Your task to perform on an android device: turn pop-ups on in chrome Image 0: 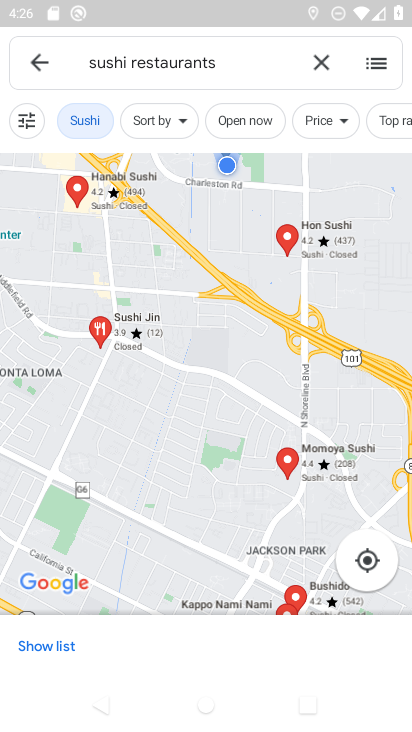
Step 0: press home button
Your task to perform on an android device: turn pop-ups on in chrome Image 1: 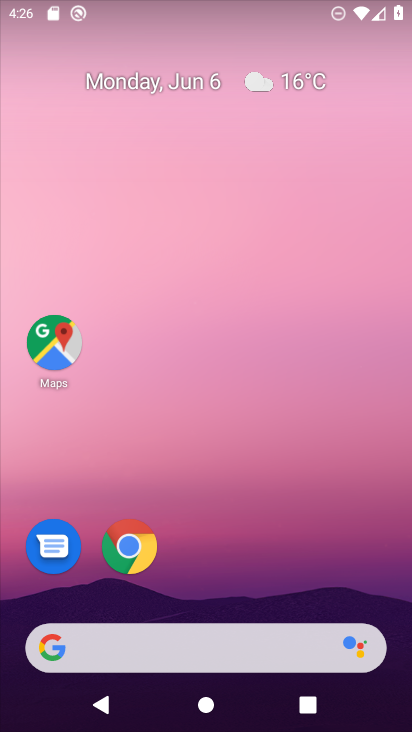
Step 1: click (155, 564)
Your task to perform on an android device: turn pop-ups on in chrome Image 2: 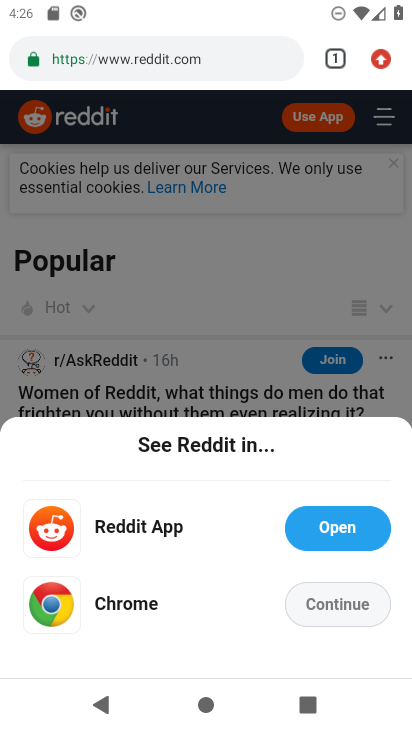
Step 2: click (385, 69)
Your task to perform on an android device: turn pop-ups on in chrome Image 3: 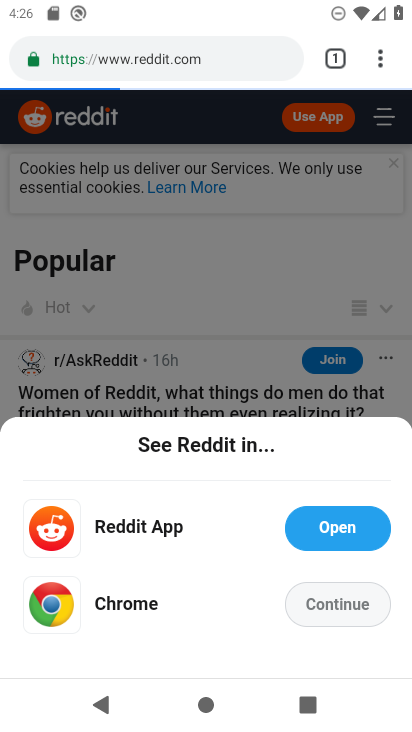
Step 3: click (384, 66)
Your task to perform on an android device: turn pop-ups on in chrome Image 4: 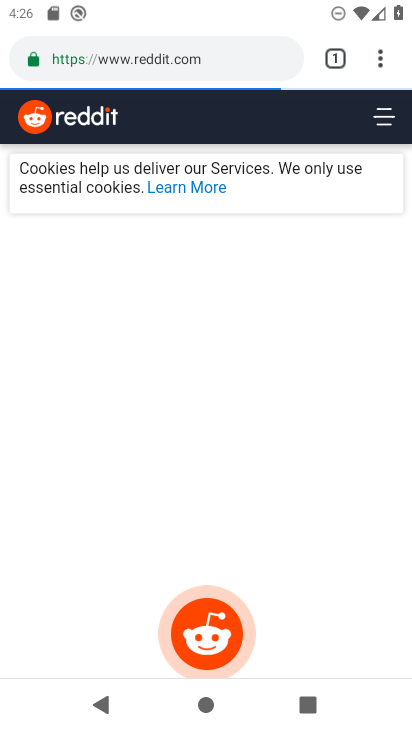
Step 4: drag from (376, 64) to (203, 572)
Your task to perform on an android device: turn pop-ups on in chrome Image 5: 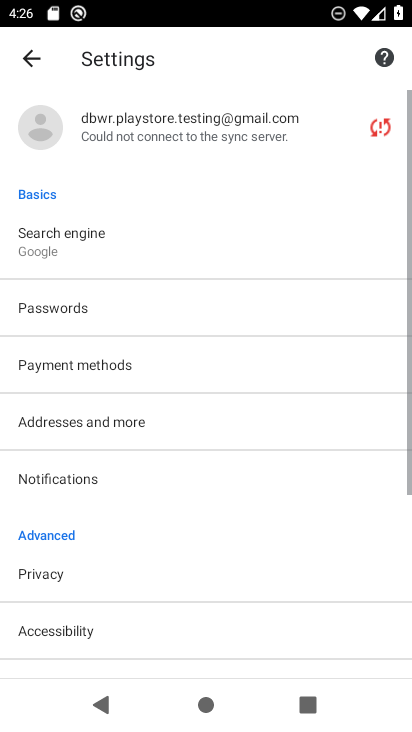
Step 5: drag from (204, 568) to (154, 3)
Your task to perform on an android device: turn pop-ups on in chrome Image 6: 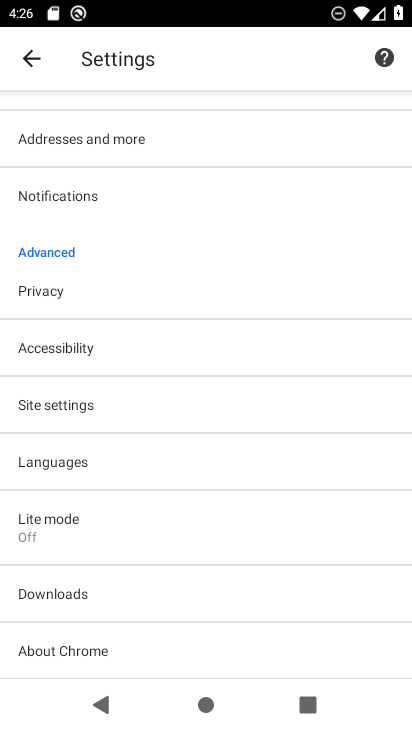
Step 6: click (79, 410)
Your task to perform on an android device: turn pop-ups on in chrome Image 7: 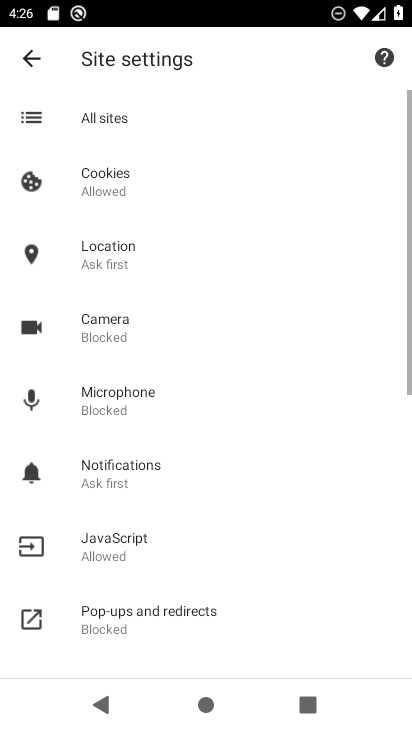
Step 7: drag from (139, 516) to (124, 221)
Your task to perform on an android device: turn pop-ups on in chrome Image 8: 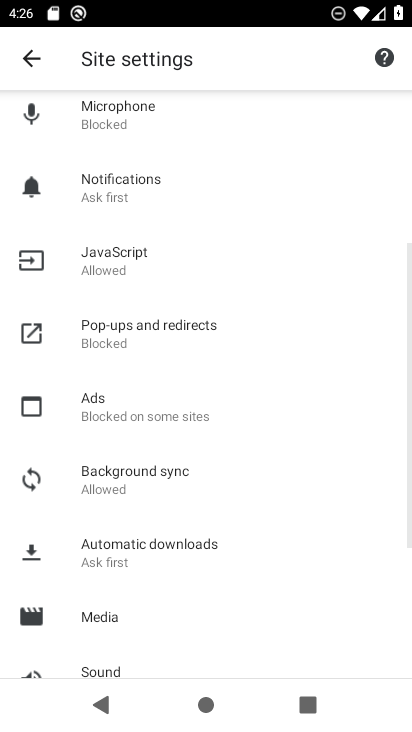
Step 8: click (139, 344)
Your task to perform on an android device: turn pop-ups on in chrome Image 9: 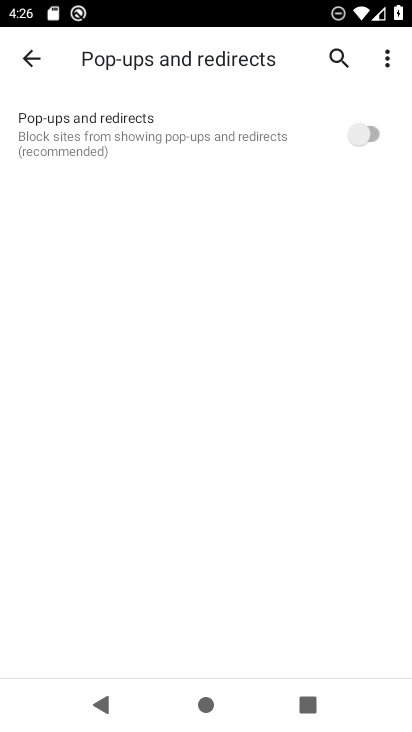
Step 9: click (361, 131)
Your task to perform on an android device: turn pop-ups on in chrome Image 10: 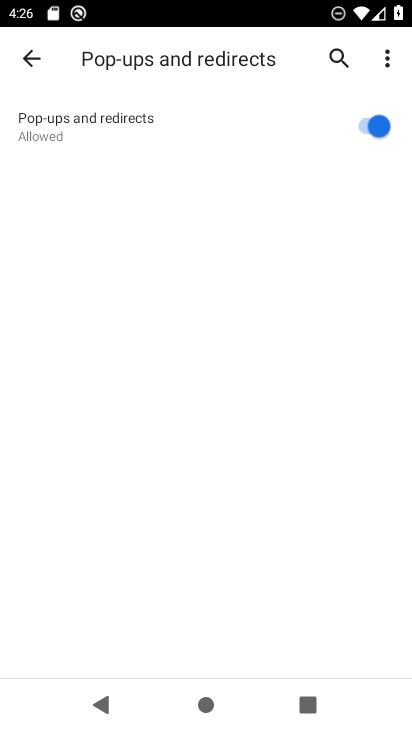
Step 10: task complete